Your task to perform on an android device: change the clock display to analog Image 0: 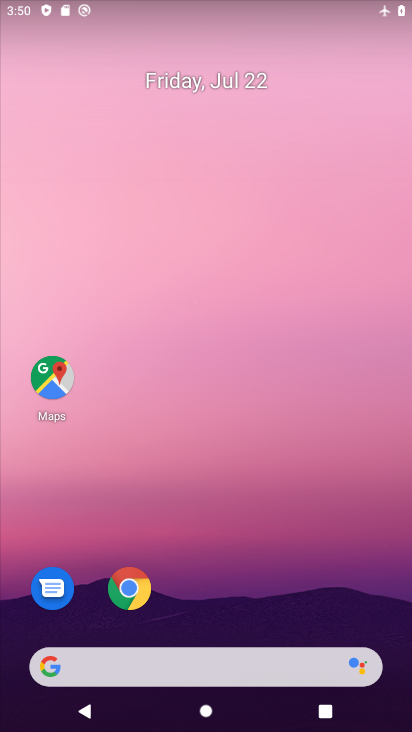
Step 0: drag from (354, 540) to (305, 169)
Your task to perform on an android device: change the clock display to analog Image 1: 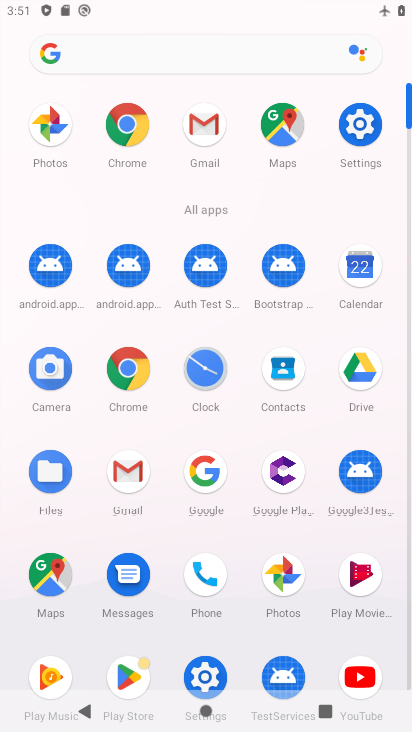
Step 1: click (199, 383)
Your task to perform on an android device: change the clock display to analog Image 2: 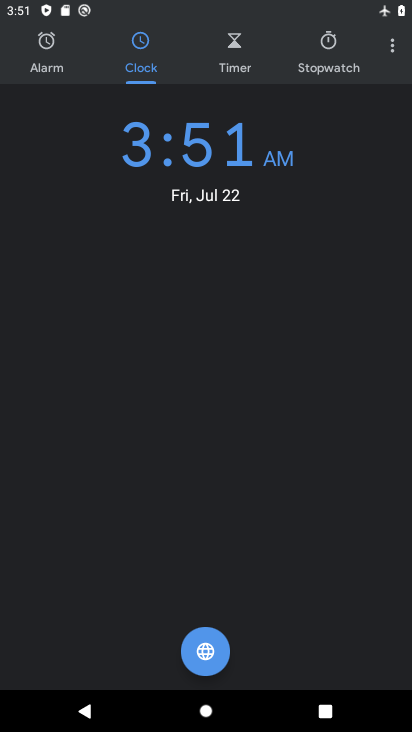
Step 2: click (393, 51)
Your task to perform on an android device: change the clock display to analog Image 3: 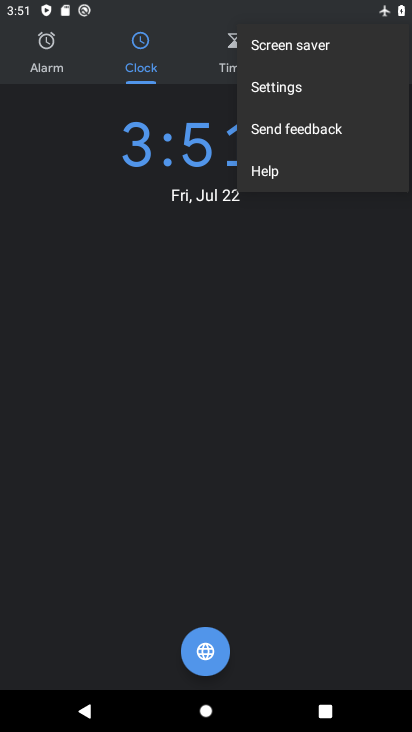
Step 3: click (316, 98)
Your task to perform on an android device: change the clock display to analog Image 4: 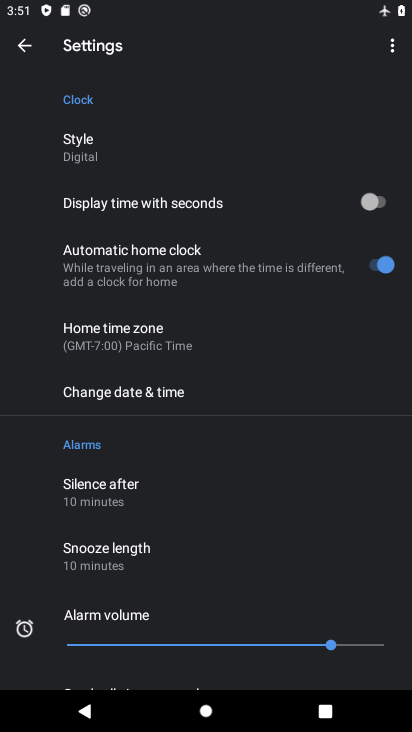
Step 4: click (97, 145)
Your task to perform on an android device: change the clock display to analog Image 5: 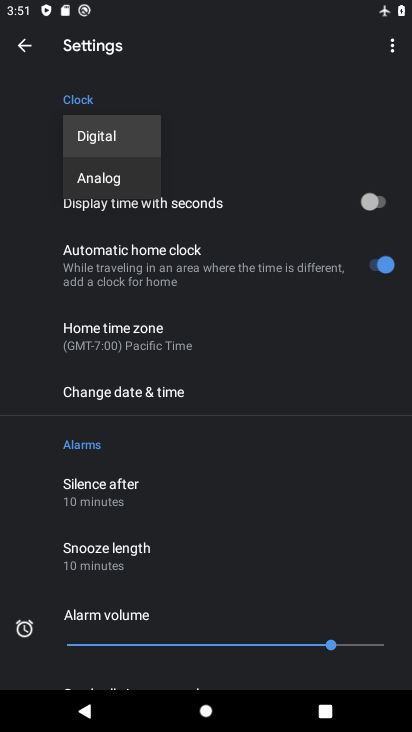
Step 5: click (150, 160)
Your task to perform on an android device: change the clock display to analog Image 6: 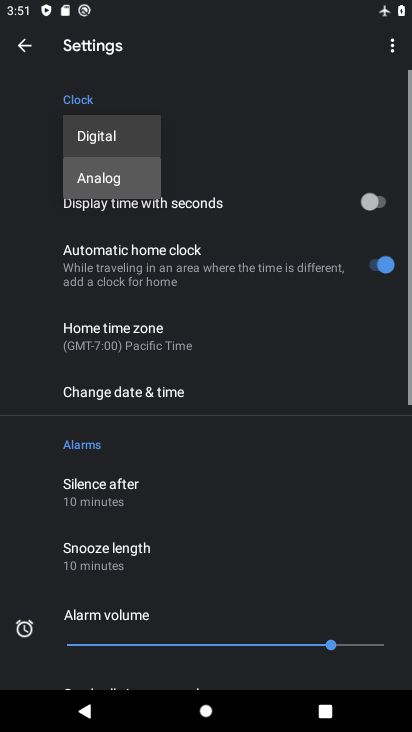
Step 6: click (125, 173)
Your task to perform on an android device: change the clock display to analog Image 7: 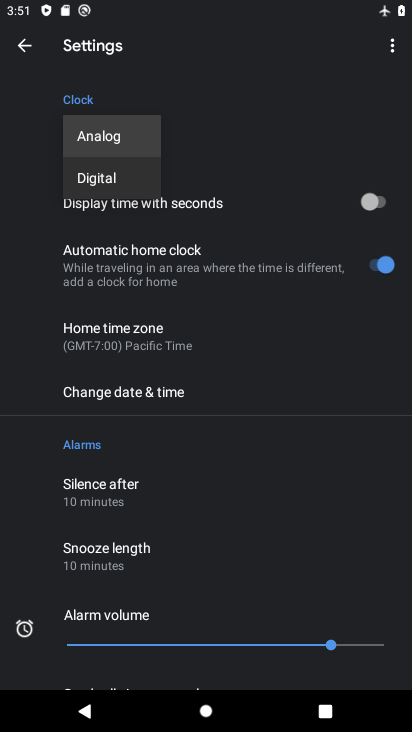
Step 7: task complete